Your task to perform on an android device: change the clock style Image 0: 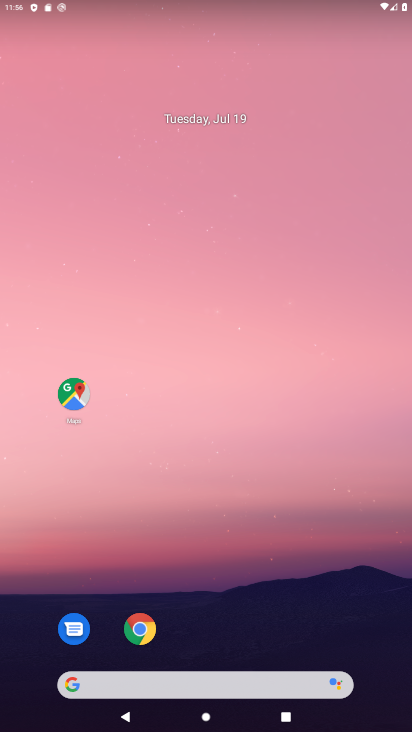
Step 0: drag from (202, 480) to (214, 121)
Your task to perform on an android device: change the clock style Image 1: 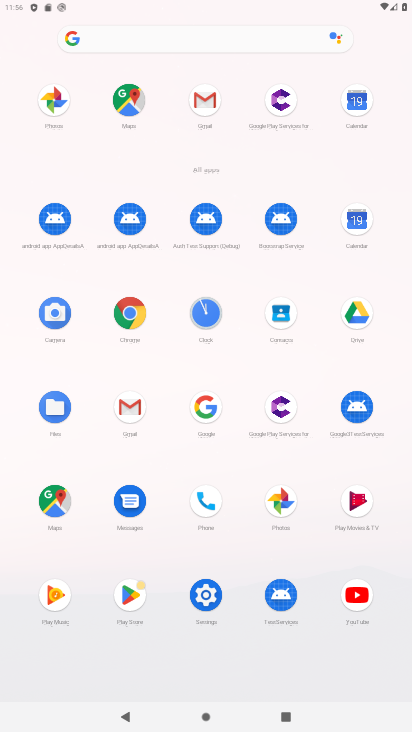
Step 1: click (200, 299)
Your task to perform on an android device: change the clock style Image 2: 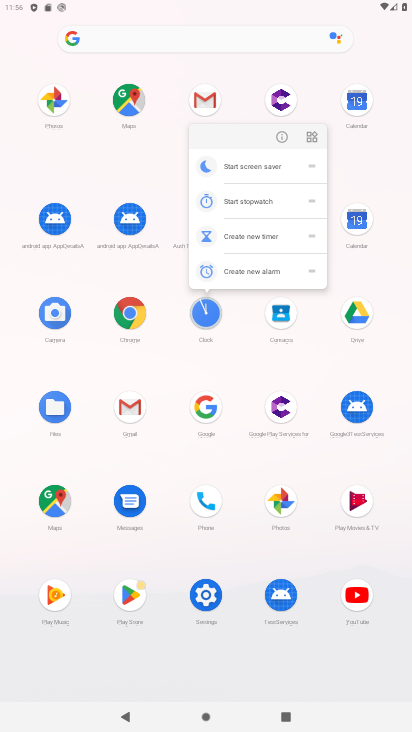
Step 2: click (277, 137)
Your task to perform on an android device: change the clock style Image 3: 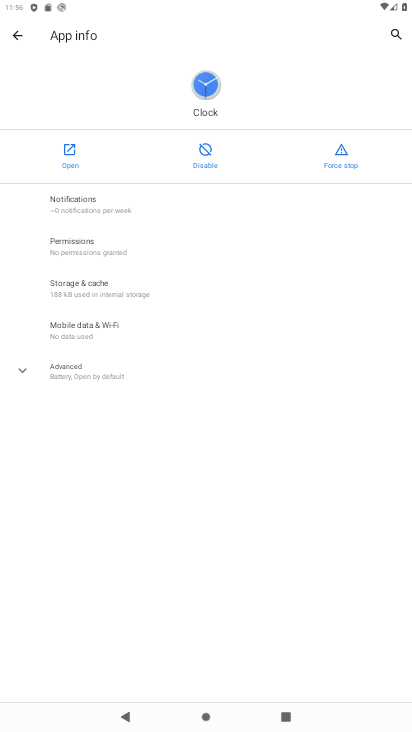
Step 3: click (68, 145)
Your task to perform on an android device: change the clock style Image 4: 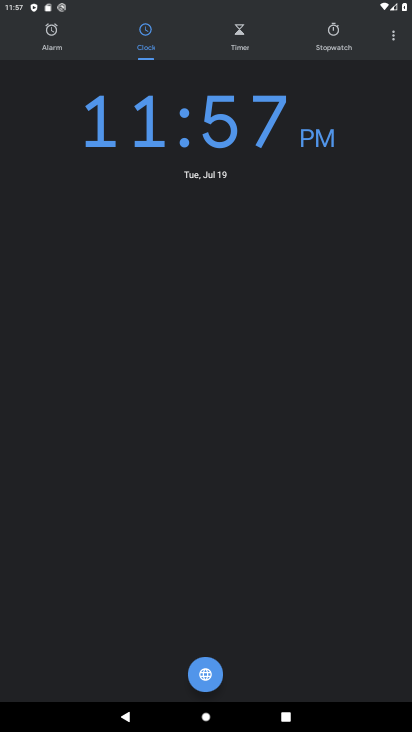
Step 4: click (394, 38)
Your task to perform on an android device: change the clock style Image 5: 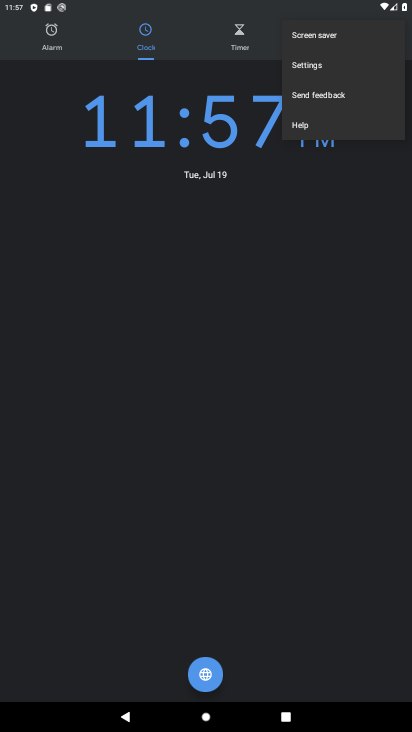
Step 5: click (331, 63)
Your task to perform on an android device: change the clock style Image 6: 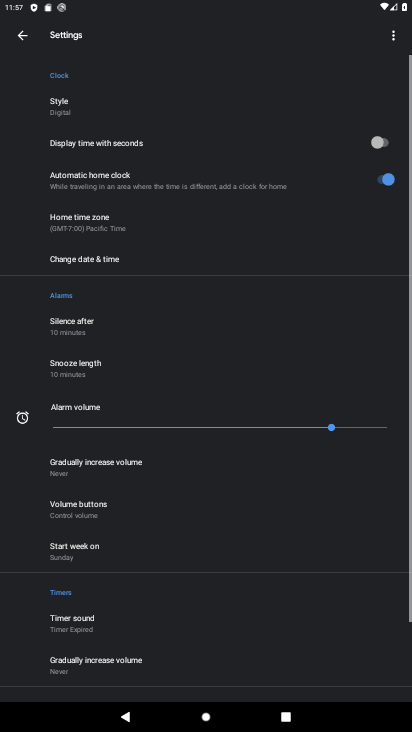
Step 6: click (73, 93)
Your task to perform on an android device: change the clock style Image 7: 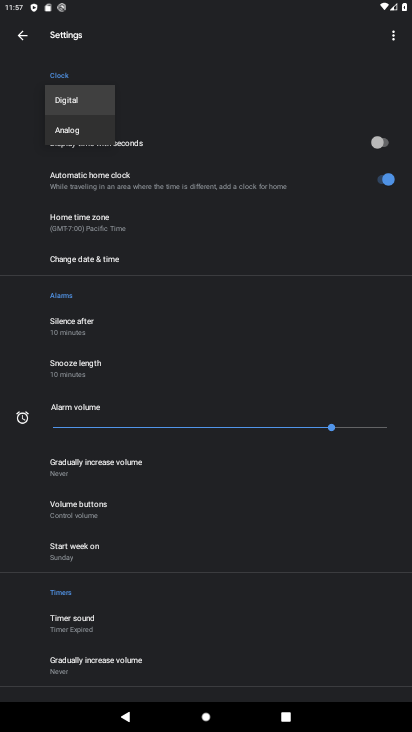
Step 7: click (85, 130)
Your task to perform on an android device: change the clock style Image 8: 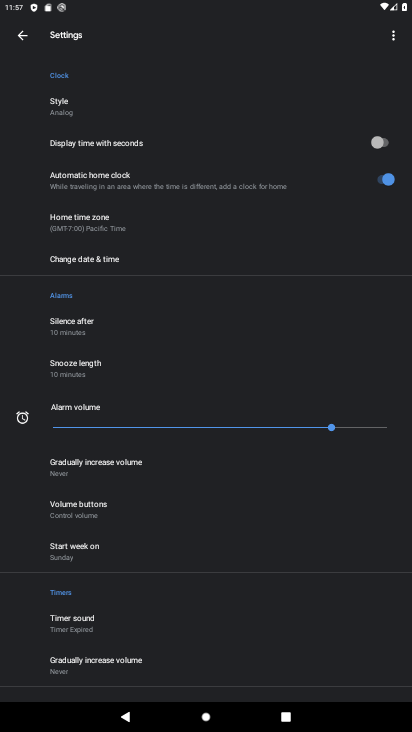
Step 8: task complete